Your task to perform on an android device: Search for Mexican restaurants on Maps Image 0: 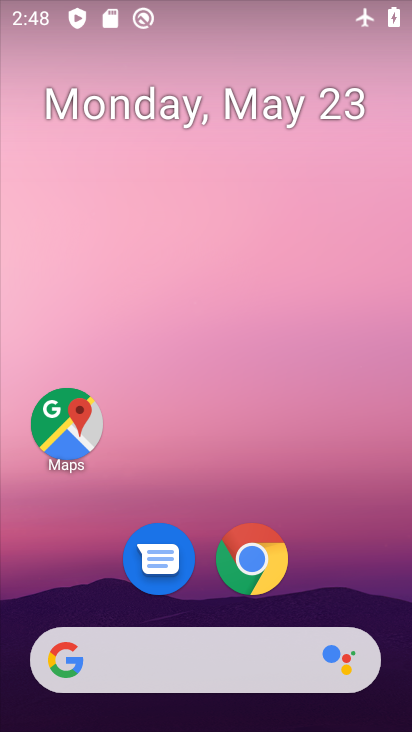
Step 0: drag from (215, 647) to (242, 224)
Your task to perform on an android device: Search for Mexican restaurants on Maps Image 1: 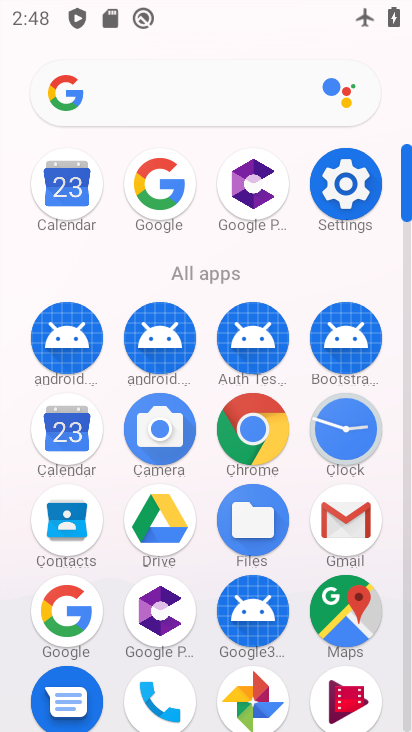
Step 1: click (348, 627)
Your task to perform on an android device: Search for Mexican restaurants on Maps Image 2: 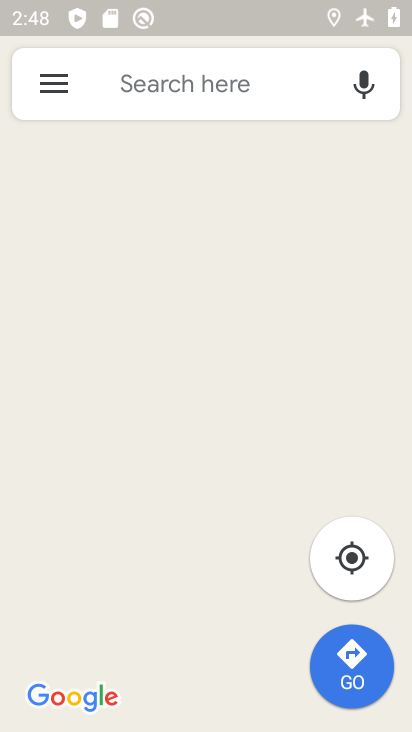
Step 2: click (207, 92)
Your task to perform on an android device: Search for Mexican restaurants on Maps Image 3: 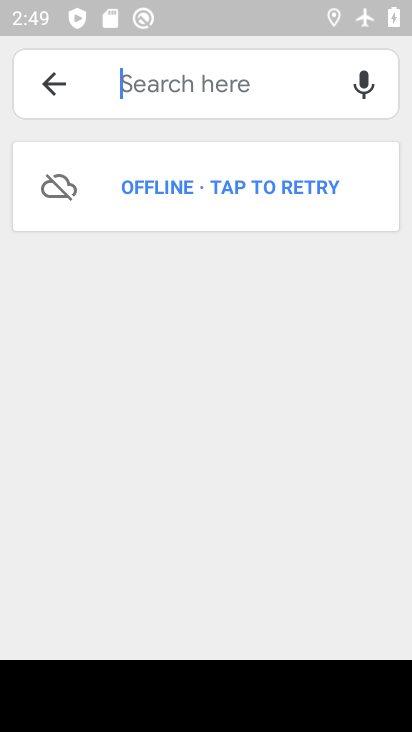
Step 3: task complete